Your task to perform on an android device: Open Chrome and go to the settings page Image 0: 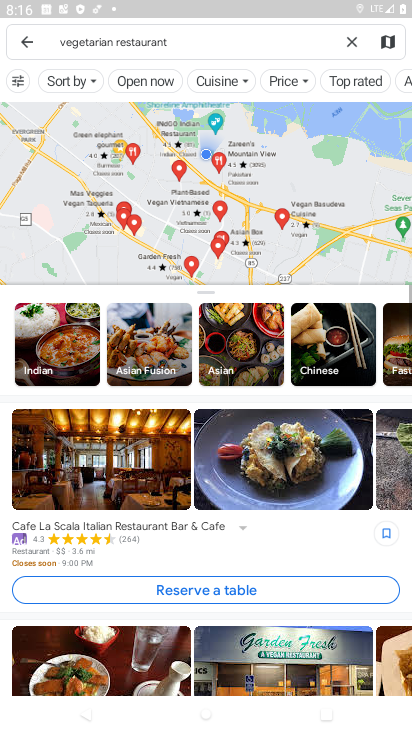
Step 0: press home button
Your task to perform on an android device: Open Chrome and go to the settings page Image 1: 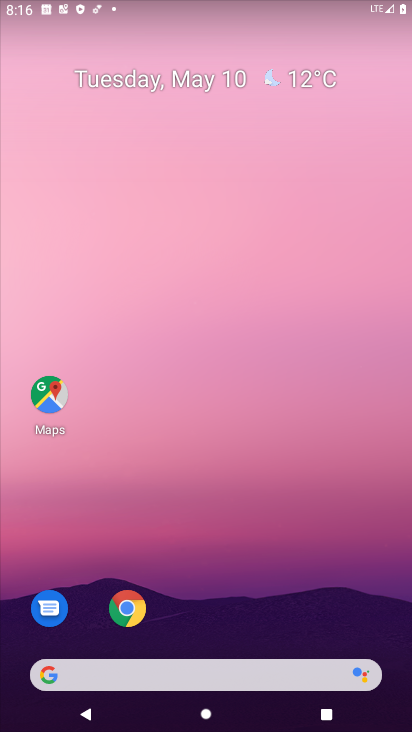
Step 1: drag from (156, 670) to (317, 91)
Your task to perform on an android device: Open Chrome and go to the settings page Image 2: 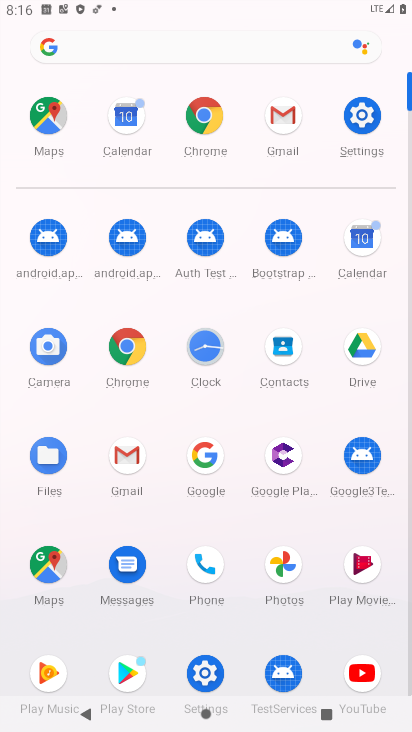
Step 2: click (207, 123)
Your task to perform on an android device: Open Chrome and go to the settings page Image 3: 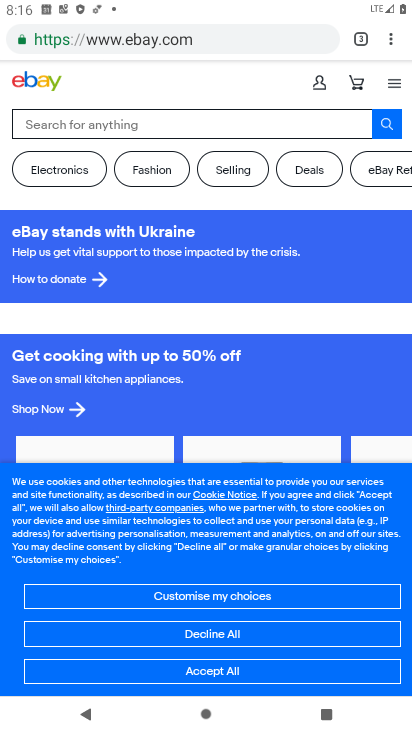
Step 3: task complete